Your task to perform on an android device: toggle translation in the chrome app Image 0: 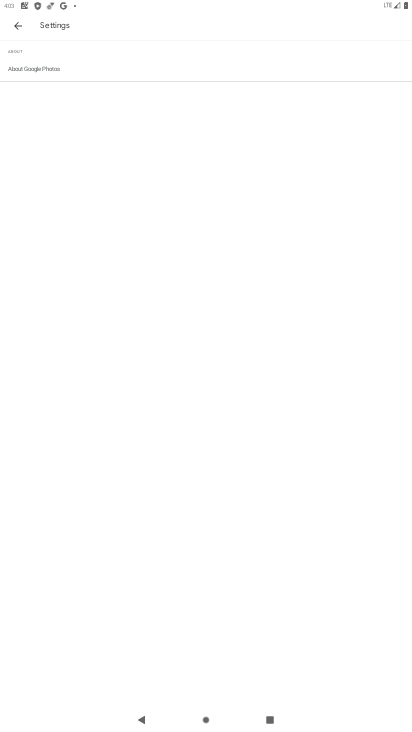
Step 0: press home button
Your task to perform on an android device: toggle translation in the chrome app Image 1: 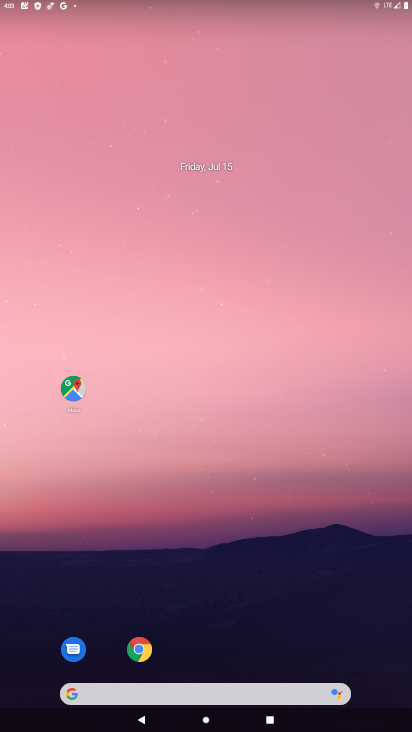
Step 1: drag from (211, 664) to (204, 277)
Your task to perform on an android device: toggle translation in the chrome app Image 2: 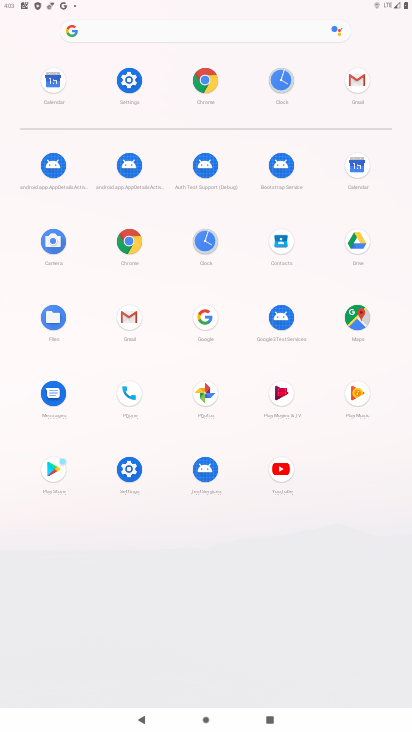
Step 2: click (213, 92)
Your task to perform on an android device: toggle translation in the chrome app Image 3: 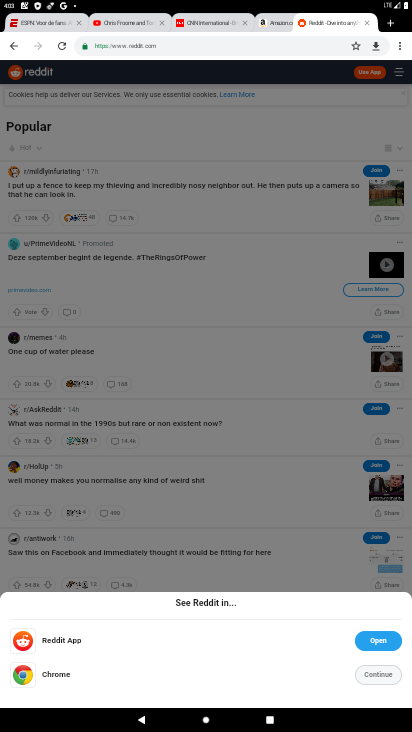
Step 3: click (397, 44)
Your task to perform on an android device: toggle translation in the chrome app Image 4: 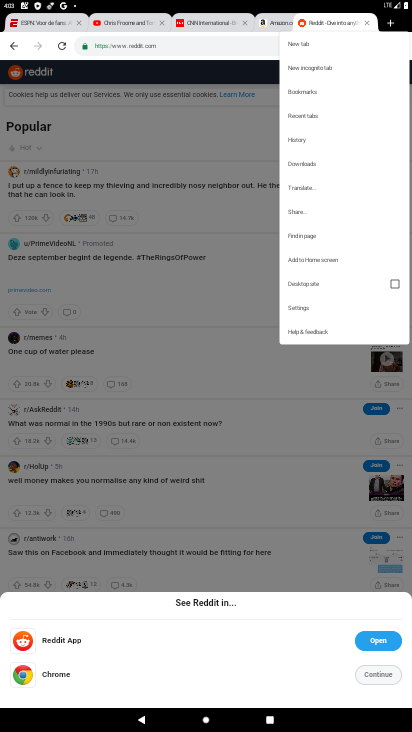
Step 4: click (300, 306)
Your task to perform on an android device: toggle translation in the chrome app Image 5: 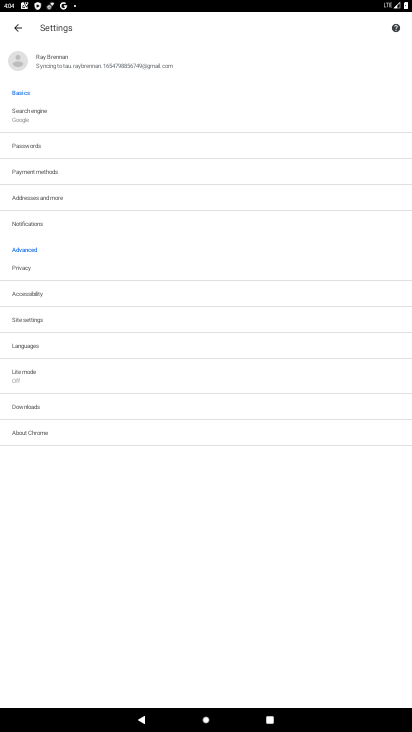
Step 5: click (43, 352)
Your task to perform on an android device: toggle translation in the chrome app Image 6: 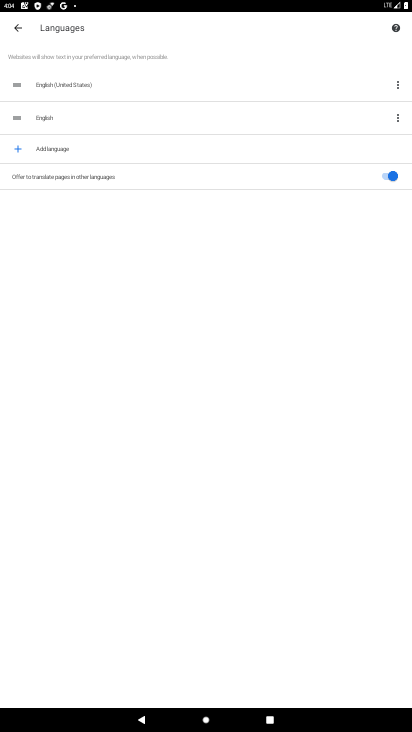
Step 6: click (387, 174)
Your task to perform on an android device: toggle translation in the chrome app Image 7: 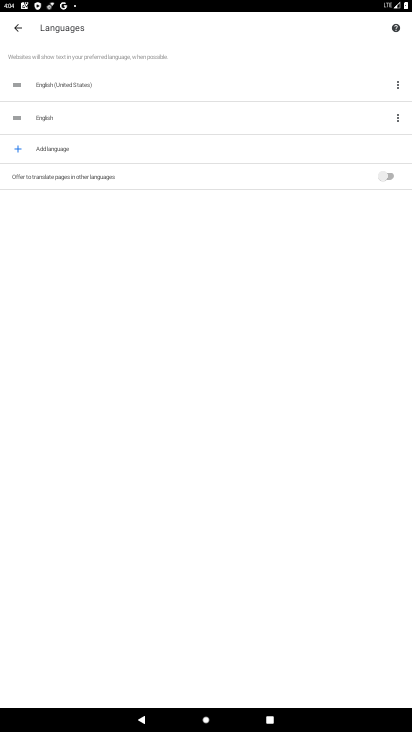
Step 7: task complete